Your task to perform on an android device: toggle notifications settings in the gmail app Image 0: 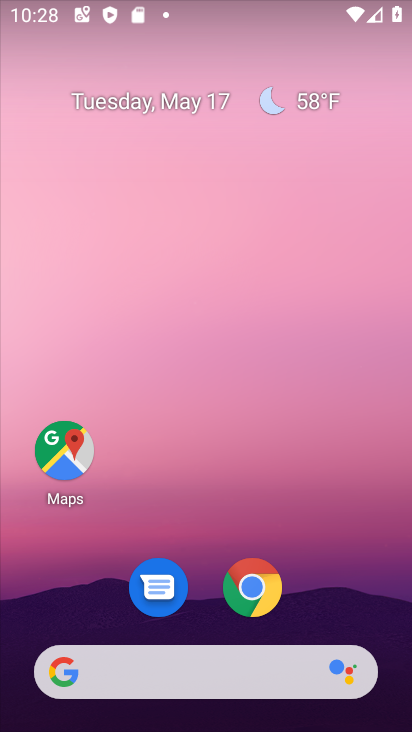
Step 0: drag from (324, 607) to (208, 115)
Your task to perform on an android device: toggle notifications settings in the gmail app Image 1: 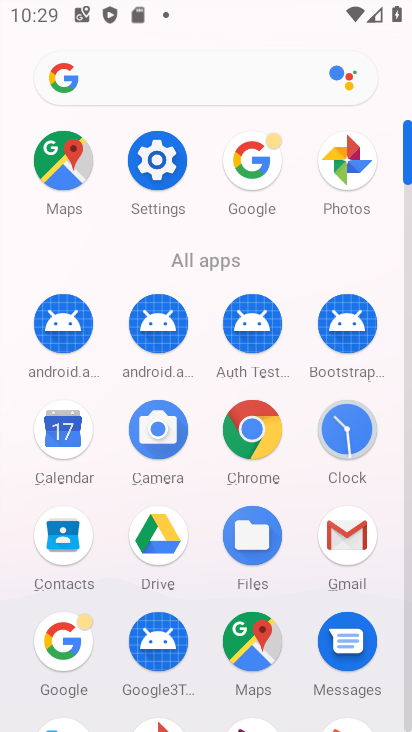
Step 1: click (348, 534)
Your task to perform on an android device: toggle notifications settings in the gmail app Image 2: 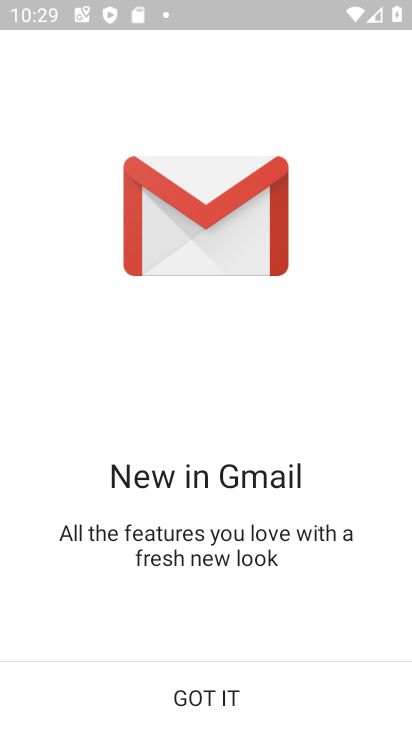
Step 2: click (205, 690)
Your task to perform on an android device: toggle notifications settings in the gmail app Image 3: 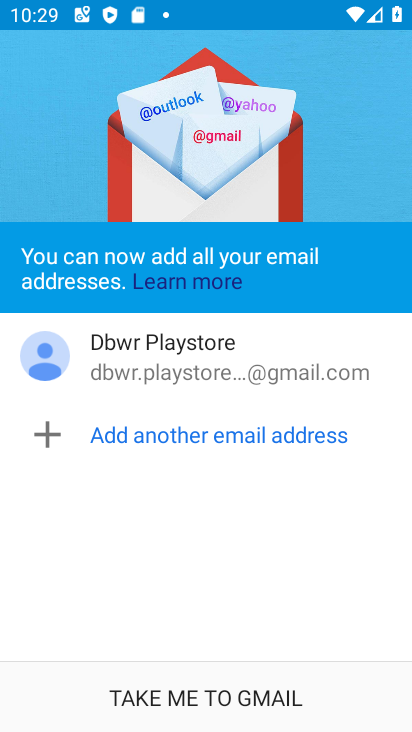
Step 3: click (205, 697)
Your task to perform on an android device: toggle notifications settings in the gmail app Image 4: 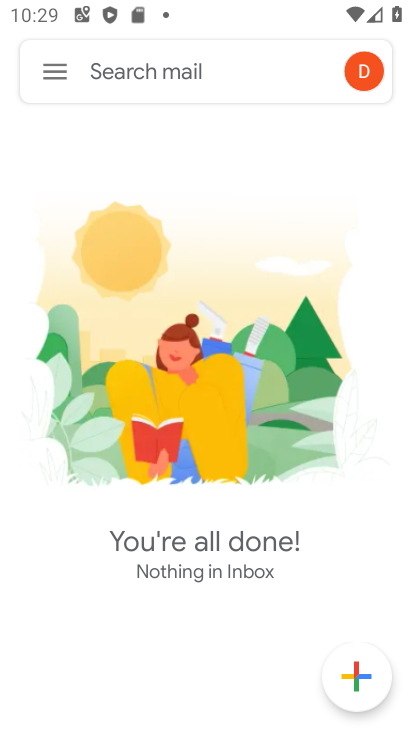
Step 4: click (61, 72)
Your task to perform on an android device: toggle notifications settings in the gmail app Image 5: 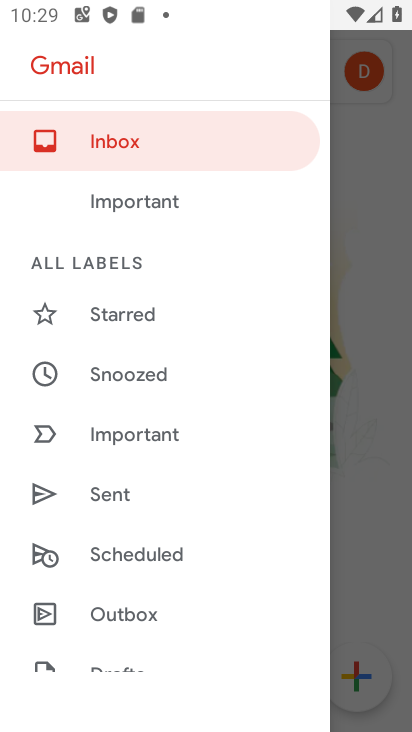
Step 5: drag from (127, 395) to (157, 314)
Your task to perform on an android device: toggle notifications settings in the gmail app Image 6: 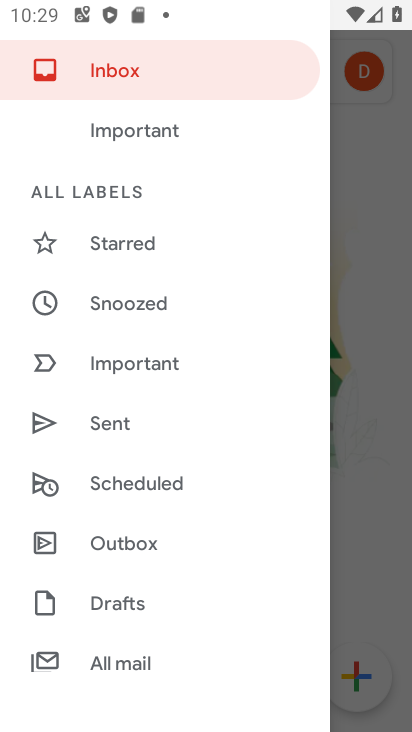
Step 6: drag from (128, 391) to (148, 316)
Your task to perform on an android device: toggle notifications settings in the gmail app Image 7: 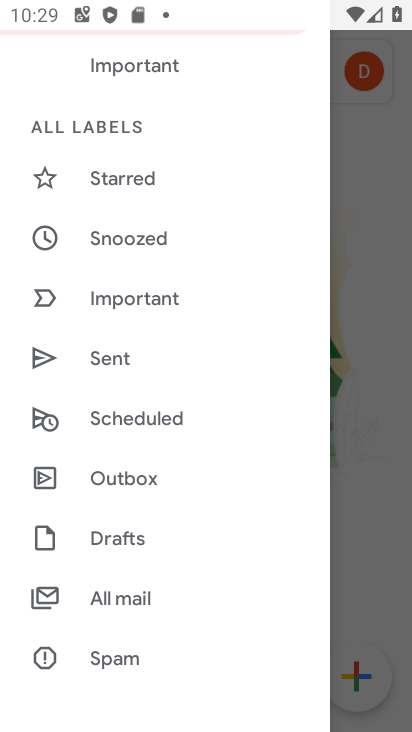
Step 7: drag from (109, 378) to (139, 305)
Your task to perform on an android device: toggle notifications settings in the gmail app Image 8: 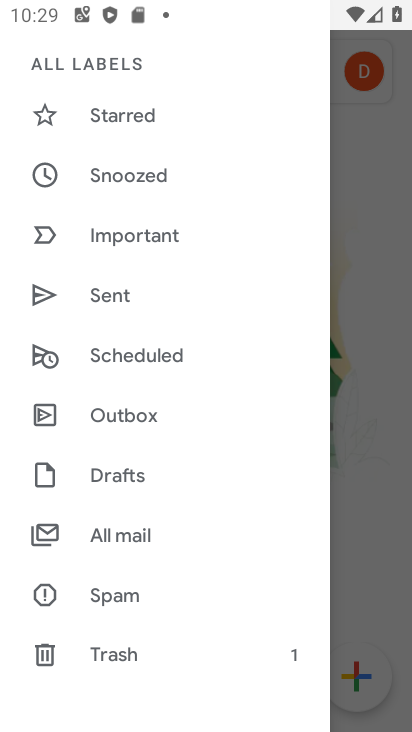
Step 8: drag from (117, 389) to (152, 320)
Your task to perform on an android device: toggle notifications settings in the gmail app Image 9: 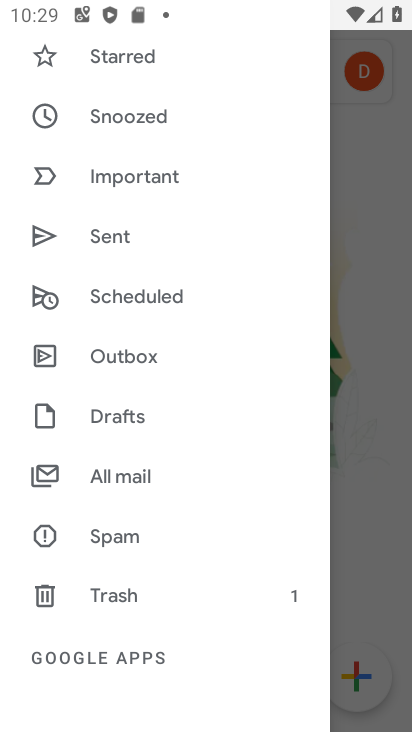
Step 9: drag from (107, 510) to (139, 418)
Your task to perform on an android device: toggle notifications settings in the gmail app Image 10: 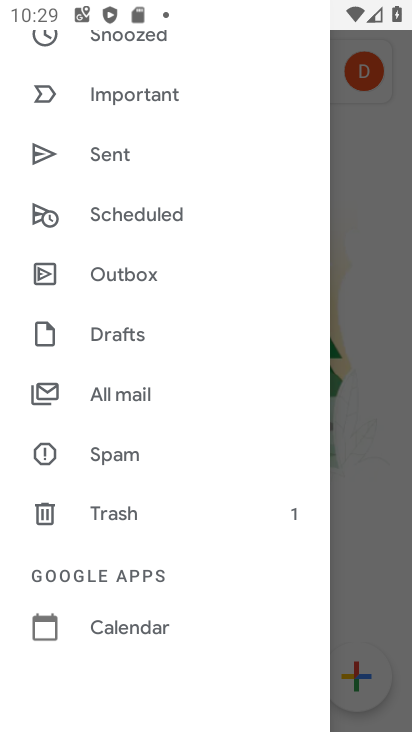
Step 10: drag from (115, 484) to (161, 380)
Your task to perform on an android device: toggle notifications settings in the gmail app Image 11: 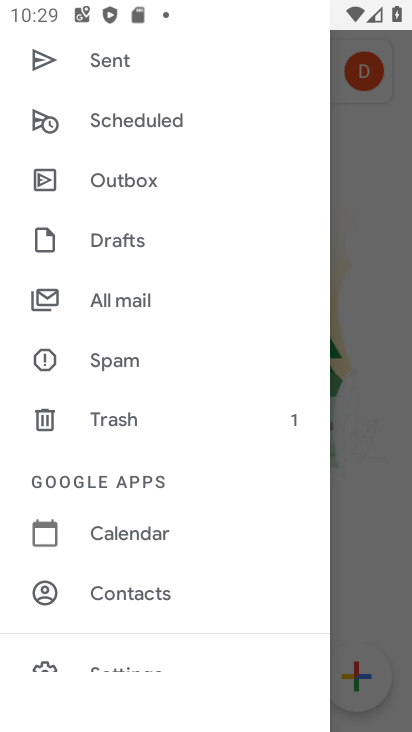
Step 11: drag from (131, 555) to (166, 418)
Your task to perform on an android device: toggle notifications settings in the gmail app Image 12: 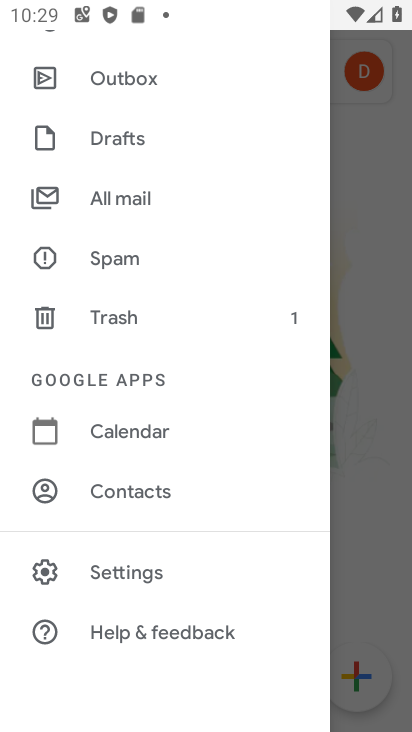
Step 12: click (135, 577)
Your task to perform on an android device: toggle notifications settings in the gmail app Image 13: 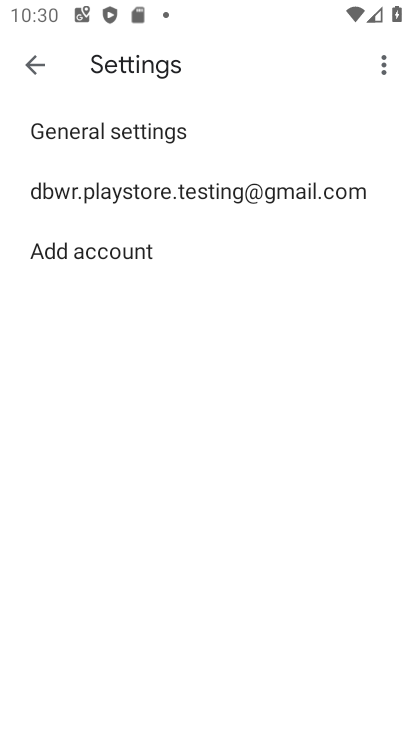
Step 13: click (219, 194)
Your task to perform on an android device: toggle notifications settings in the gmail app Image 14: 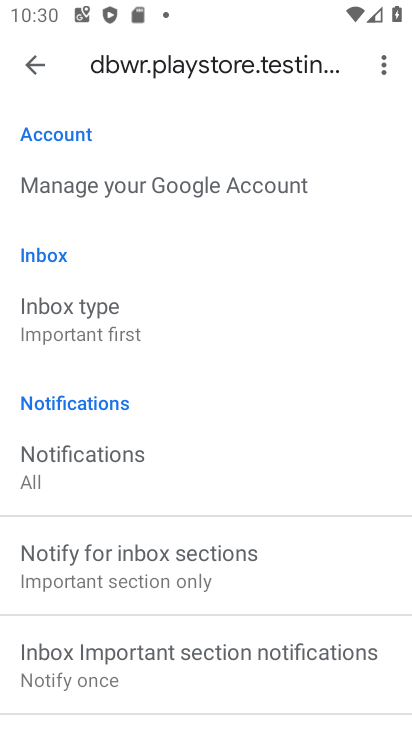
Step 14: drag from (179, 456) to (173, 384)
Your task to perform on an android device: toggle notifications settings in the gmail app Image 15: 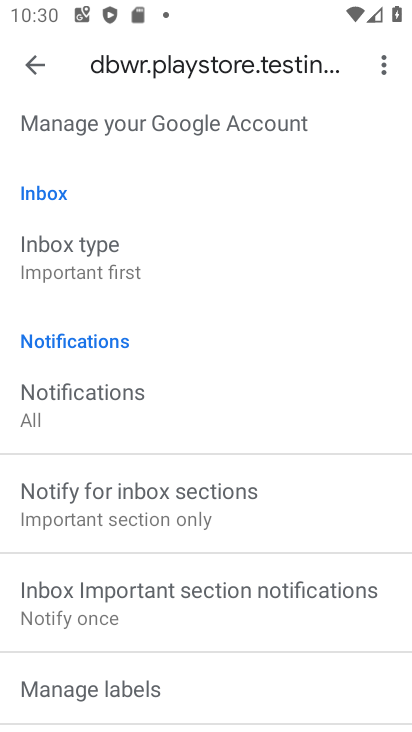
Step 15: drag from (156, 464) to (167, 378)
Your task to perform on an android device: toggle notifications settings in the gmail app Image 16: 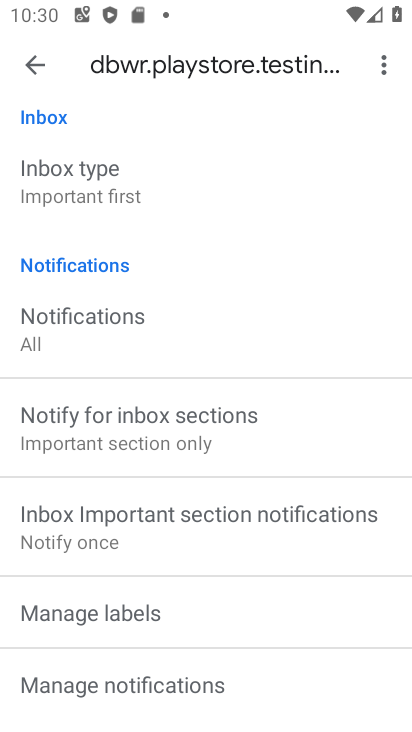
Step 16: drag from (126, 570) to (138, 428)
Your task to perform on an android device: toggle notifications settings in the gmail app Image 17: 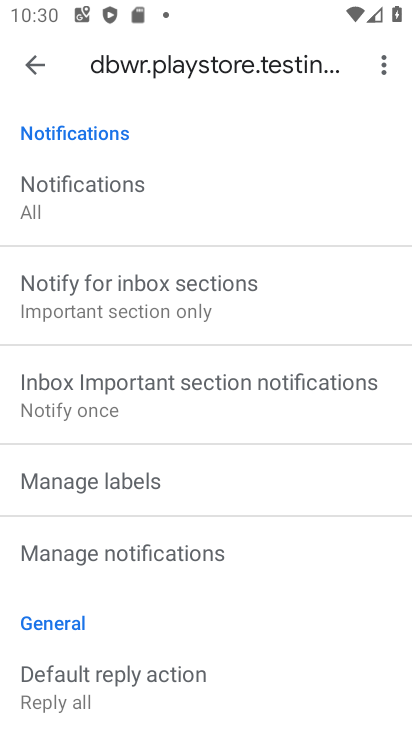
Step 17: click (132, 553)
Your task to perform on an android device: toggle notifications settings in the gmail app Image 18: 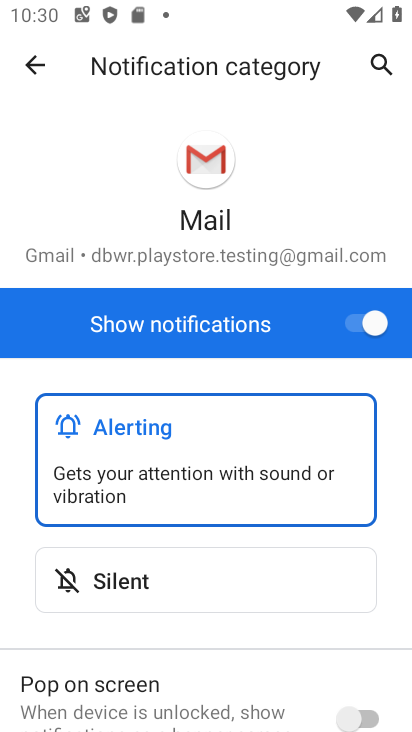
Step 18: click (381, 321)
Your task to perform on an android device: toggle notifications settings in the gmail app Image 19: 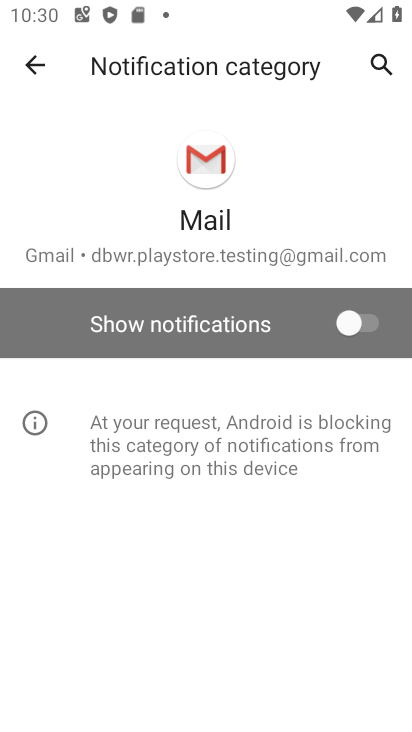
Step 19: task complete